Your task to perform on an android device: check android version Image 0: 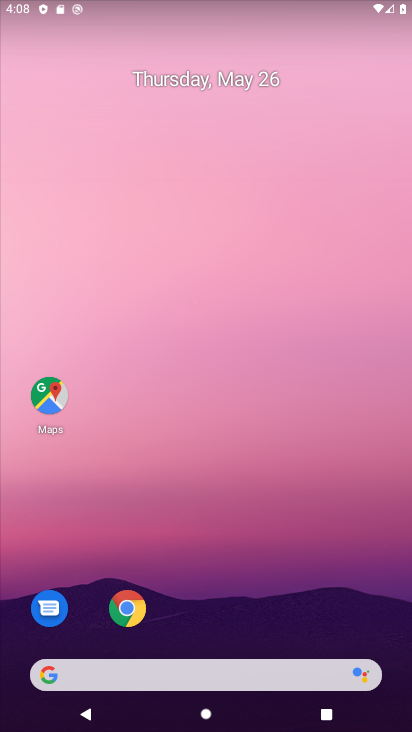
Step 0: drag from (219, 649) to (349, 131)
Your task to perform on an android device: check android version Image 1: 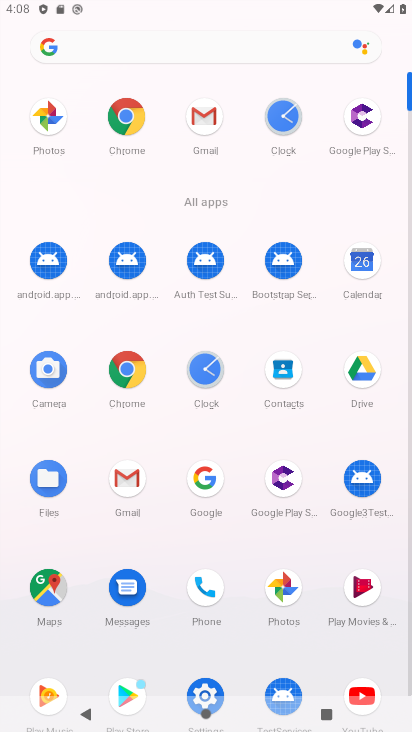
Step 1: drag from (162, 599) to (225, 391)
Your task to perform on an android device: check android version Image 2: 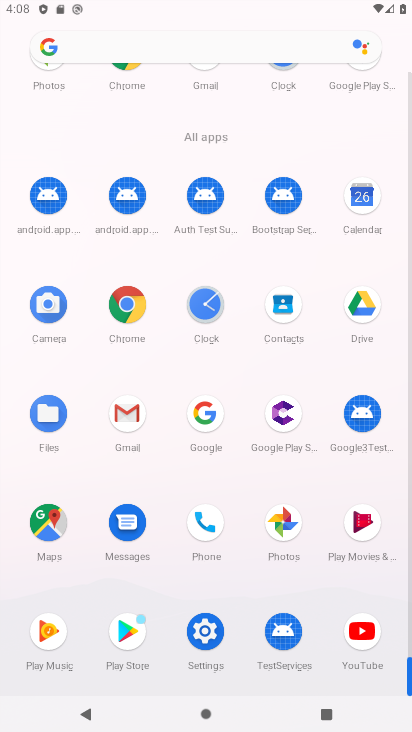
Step 2: click (207, 643)
Your task to perform on an android device: check android version Image 3: 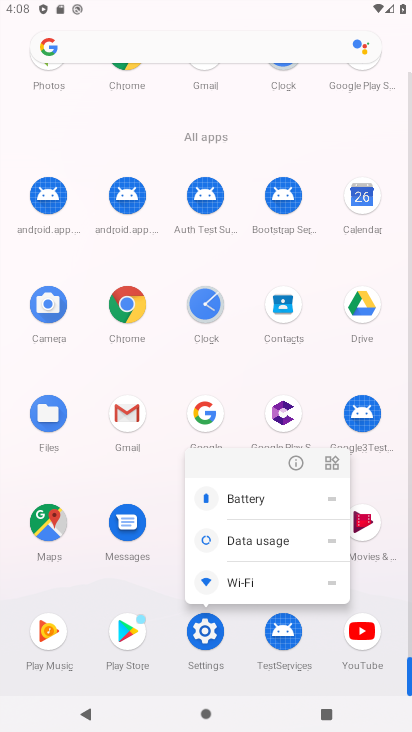
Step 3: click (207, 643)
Your task to perform on an android device: check android version Image 4: 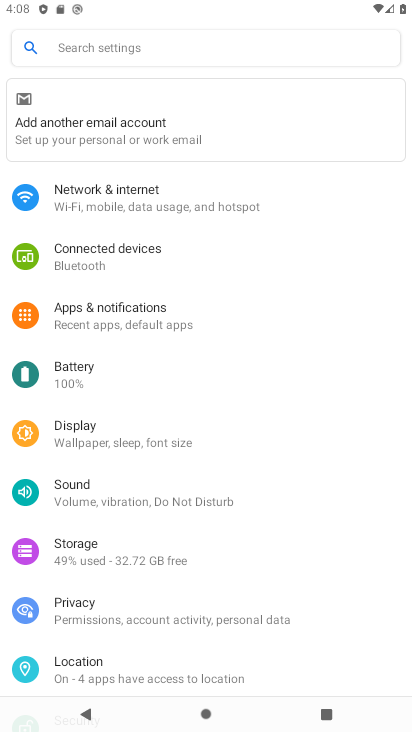
Step 4: drag from (137, 631) to (307, 150)
Your task to perform on an android device: check android version Image 5: 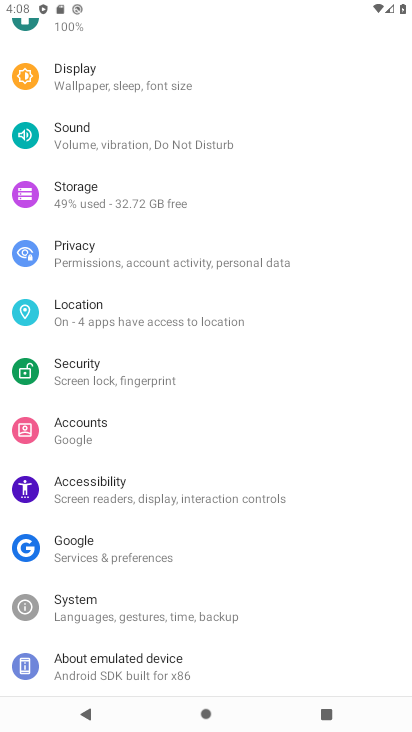
Step 5: click (204, 680)
Your task to perform on an android device: check android version Image 6: 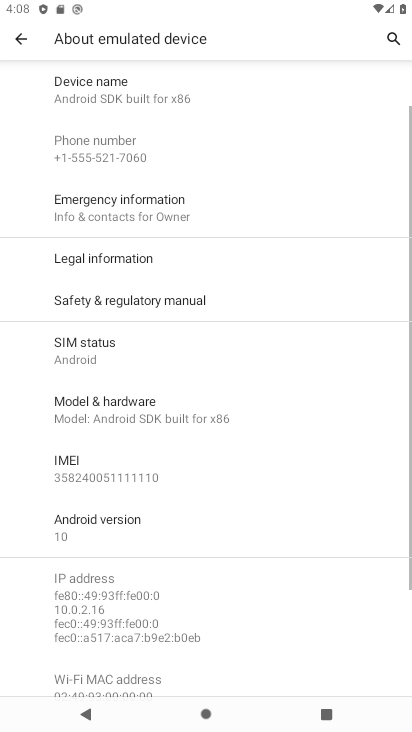
Step 6: drag from (169, 426) to (402, 60)
Your task to perform on an android device: check android version Image 7: 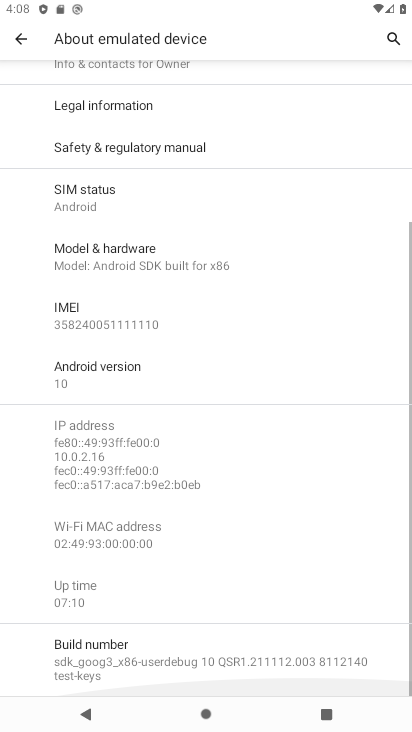
Step 7: drag from (163, 647) to (254, 353)
Your task to perform on an android device: check android version Image 8: 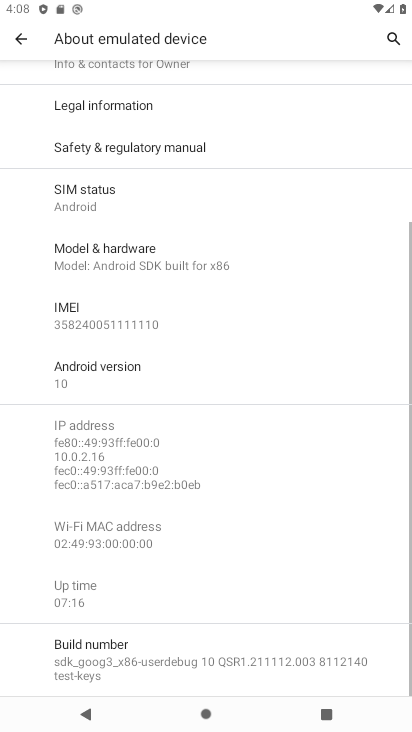
Step 8: click (177, 381)
Your task to perform on an android device: check android version Image 9: 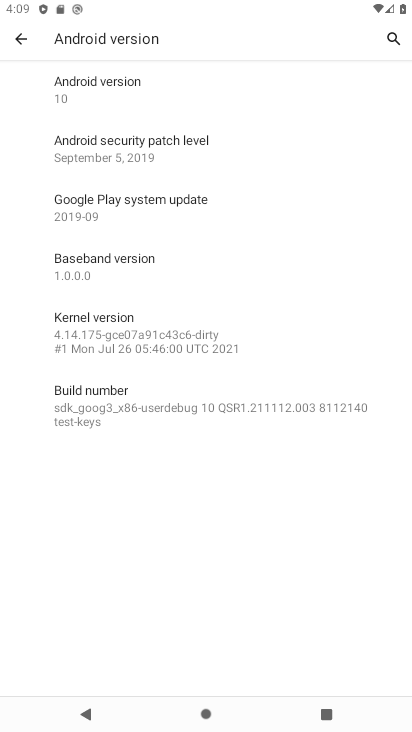
Step 9: task complete